Your task to perform on an android device: Go to Yahoo.com Image 0: 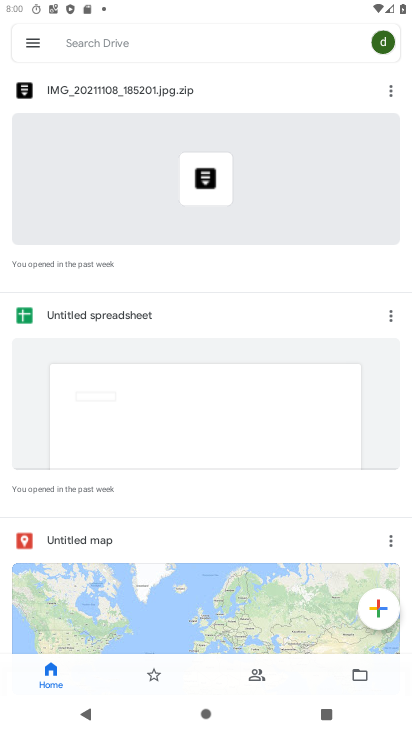
Step 0: press home button
Your task to perform on an android device: Go to Yahoo.com Image 1: 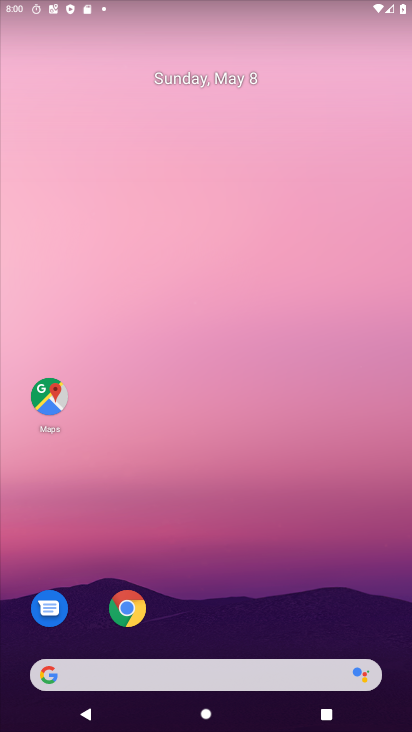
Step 1: click (132, 615)
Your task to perform on an android device: Go to Yahoo.com Image 2: 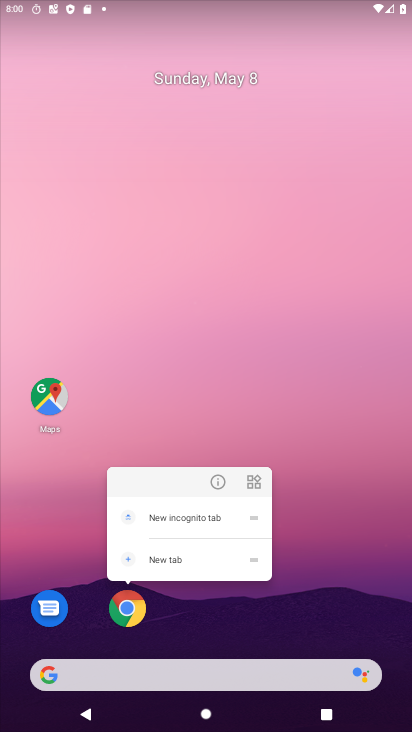
Step 2: click (132, 615)
Your task to perform on an android device: Go to Yahoo.com Image 3: 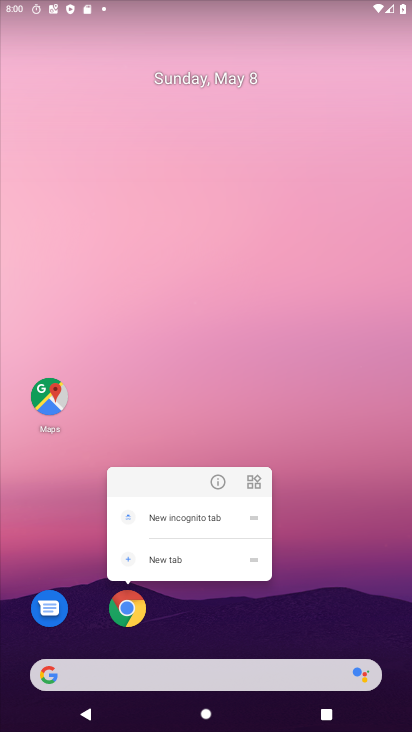
Step 3: click (138, 613)
Your task to perform on an android device: Go to Yahoo.com Image 4: 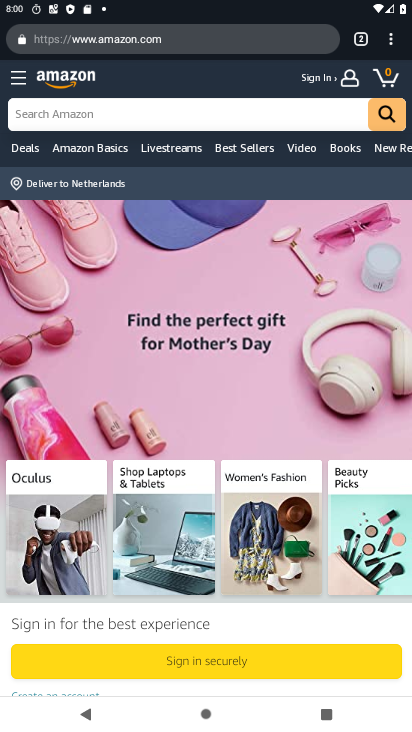
Step 4: click (201, 30)
Your task to perform on an android device: Go to Yahoo.com Image 5: 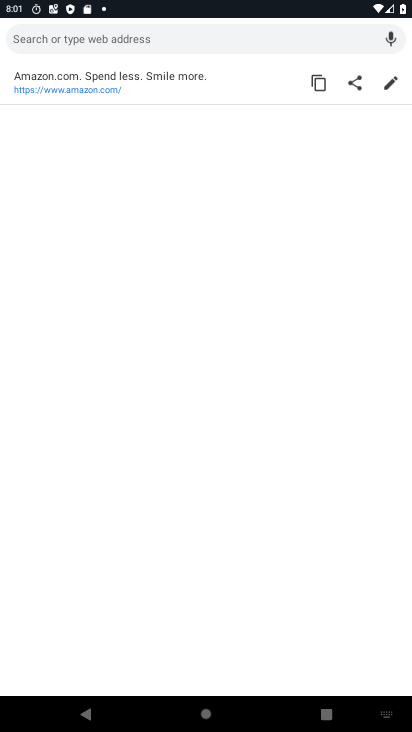
Step 5: type "yahoo.com"
Your task to perform on an android device: Go to Yahoo.com Image 6: 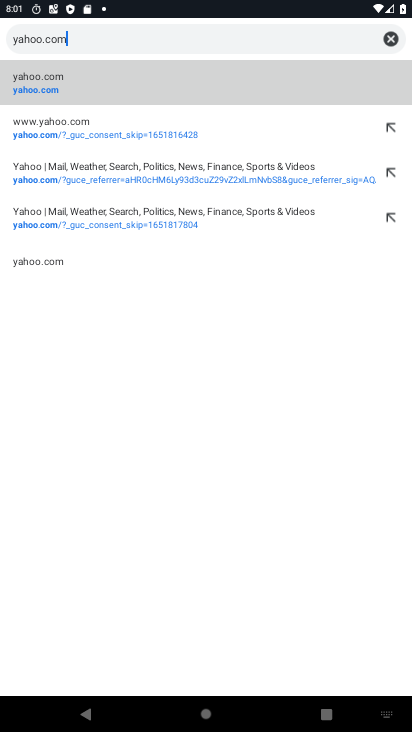
Step 6: click (54, 90)
Your task to perform on an android device: Go to Yahoo.com Image 7: 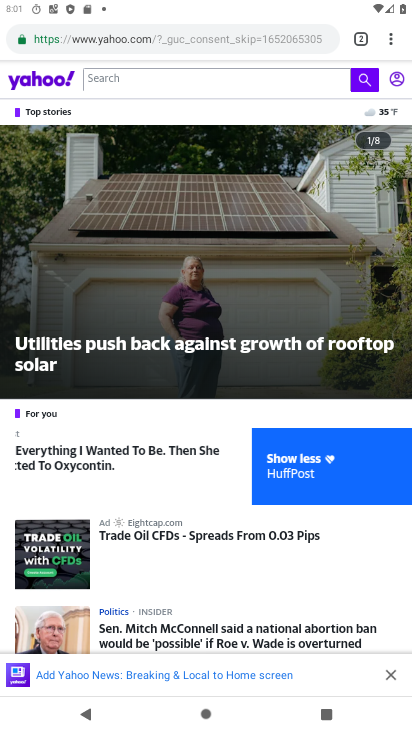
Step 7: task complete